Your task to perform on an android device: install app "Chime – Mobile Banking" Image 0: 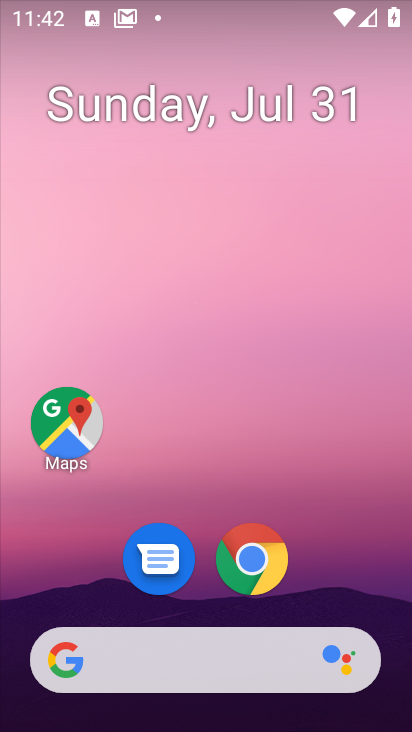
Step 0: drag from (113, 609) to (220, 14)
Your task to perform on an android device: install app "Chime – Mobile Banking" Image 1: 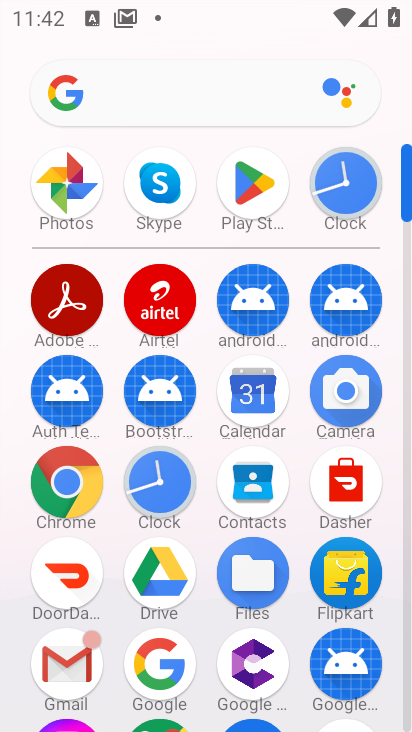
Step 1: click (266, 187)
Your task to perform on an android device: install app "Chime – Mobile Banking" Image 2: 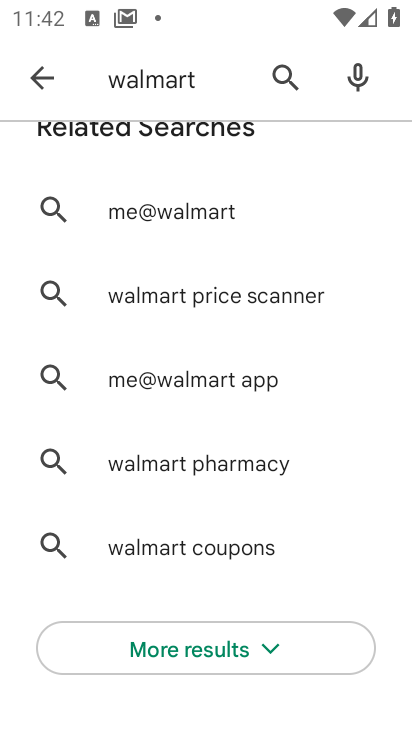
Step 2: click (274, 73)
Your task to perform on an android device: install app "Chime – Mobile Banking" Image 3: 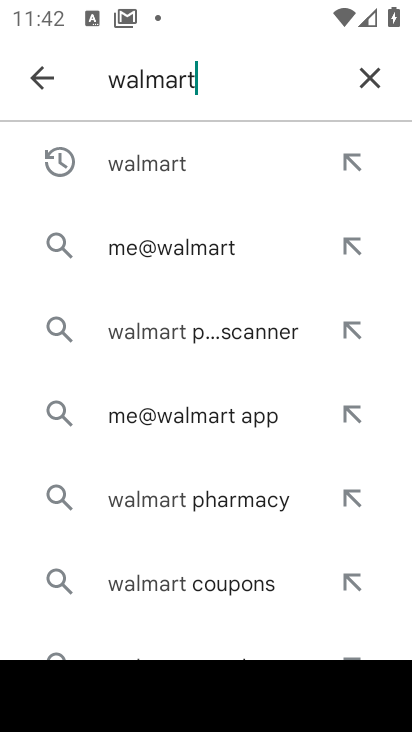
Step 3: click (375, 65)
Your task to perform on an android device: install app "Chime – Mobile Banking" Image 4: 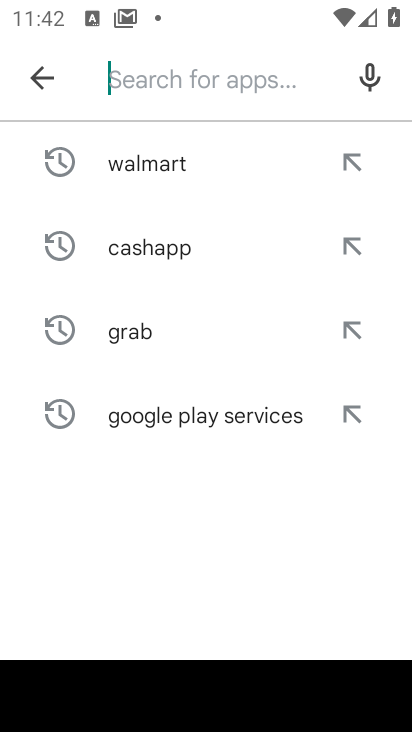
Step 4: click (163, 80)
Your task to perform on an android device: install app "Chime – Mobile Banking" Image 5: 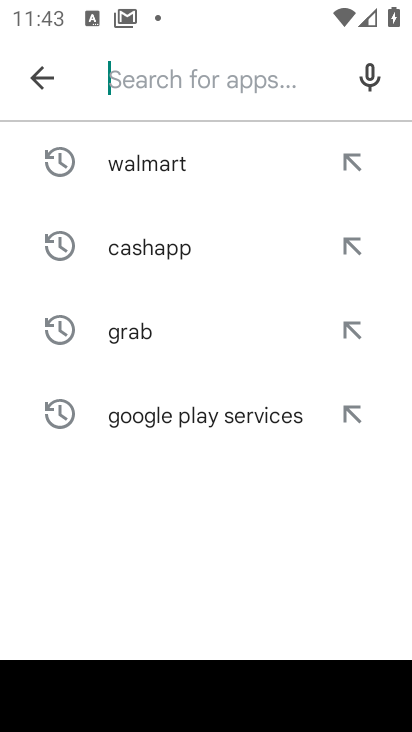
Step 5: type "chime"
Your task to perform on an android device: install app "Chime – Mobile Banking" Image 6: 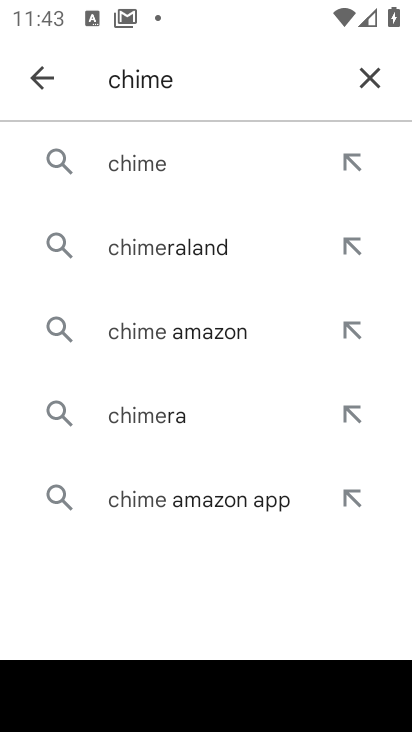
Step 6: click (153, 157)
Your task to perform on an android device: install app "Chime – Mobile Banking" Image 7: 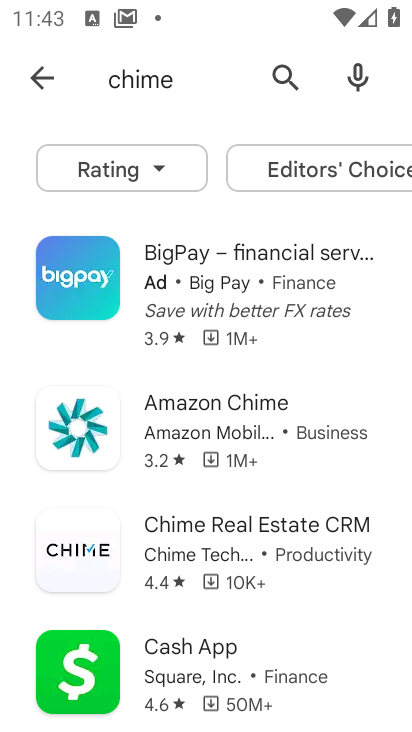
Step 7: task complete